Your task to perform on an android device: see sites visited before in the chrome app Image 0: 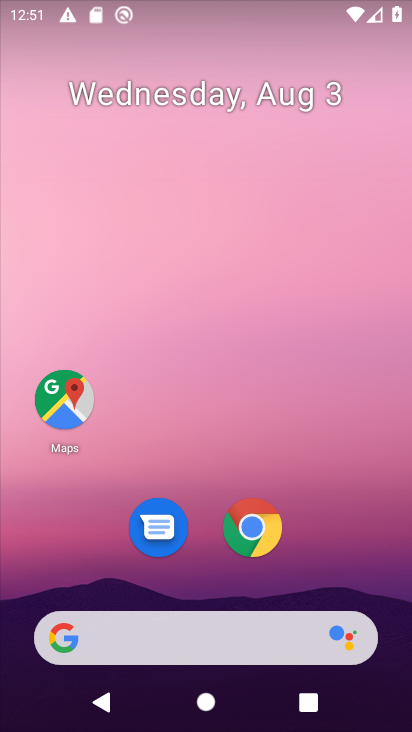
Step 0: click (273, 526)
Your task to perform on an android device: see sites visited before in the chrome app Image 1: 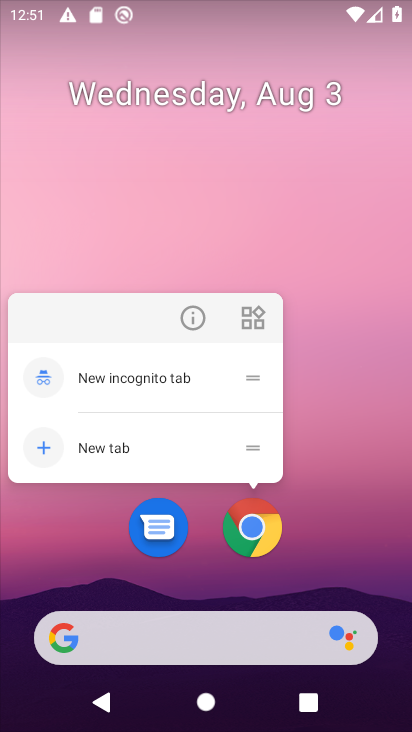
Step 1: click (267, 530)
Your task to perform on an android device: see sites visited before in the chrome app Image 2: 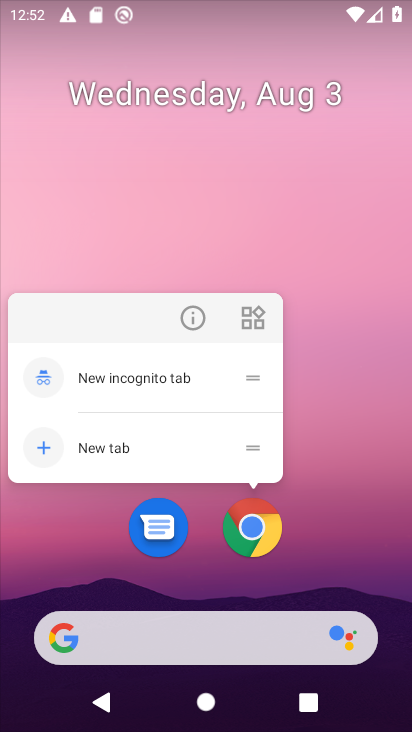
Step 2: click (267, 521)
Your task to perform on an android device: see sites visited before in the chrome app Image 3: 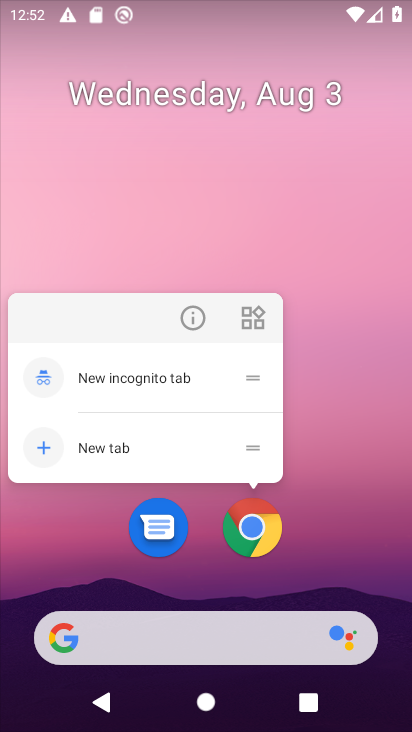
Step 3: click (263, 538)
Your task to perform on an android device: see sites visited before in the chrome app Image 4: 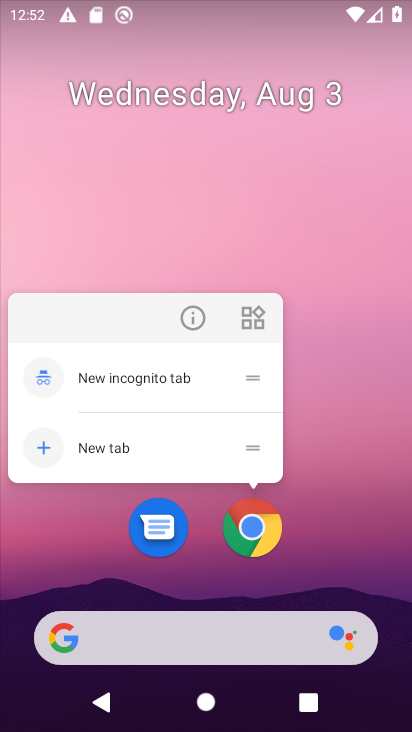
Step 4: click (267, 522)
Your task to perform on an android device: see sites visited before in the chrome app Image 5: 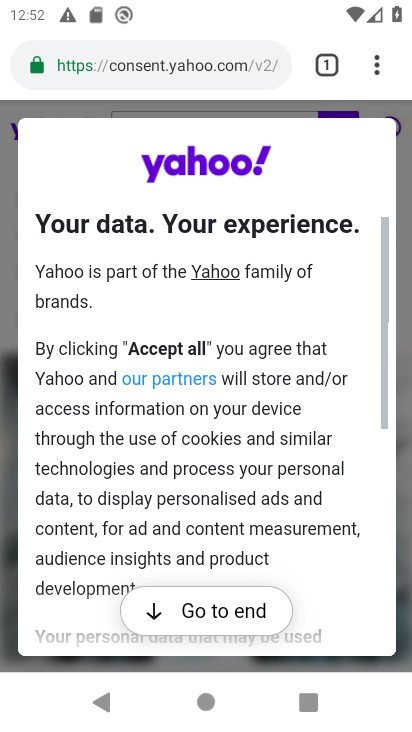
Step 5: click (377, 58)
Your task to perform on an android device: see sites visited before in the chrome app Image 6: 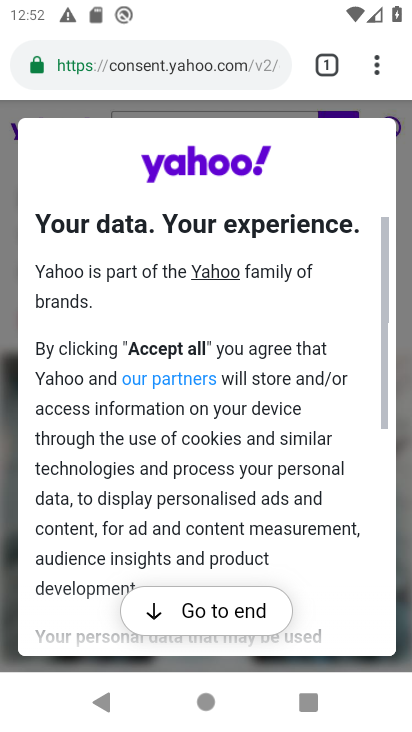
Step 6: task complete